Your task to perform on an android device: Go to Google Image 0: 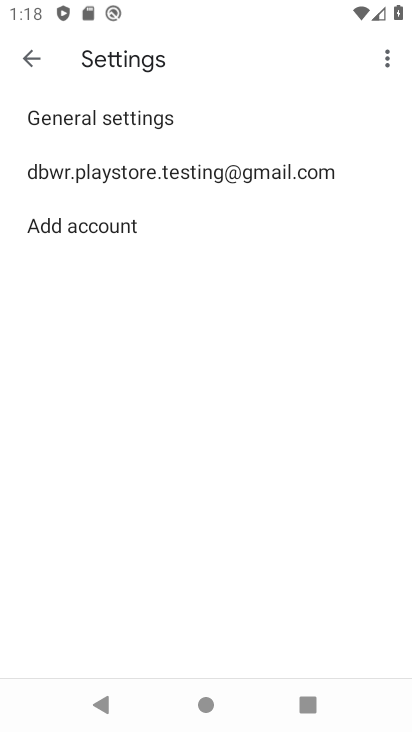
Step 0: press home button
Your task to perform on an android device: Go to Google Image 1: 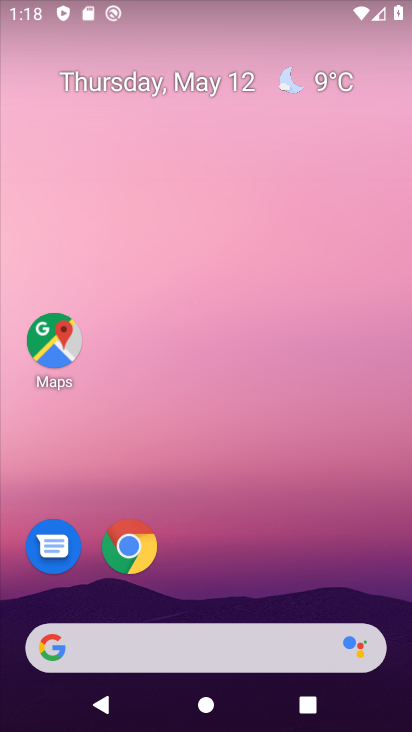
Step 1: drag from (257, 670) to (387, 122)
Your task to perform on an android device: Go to Google Image 2: 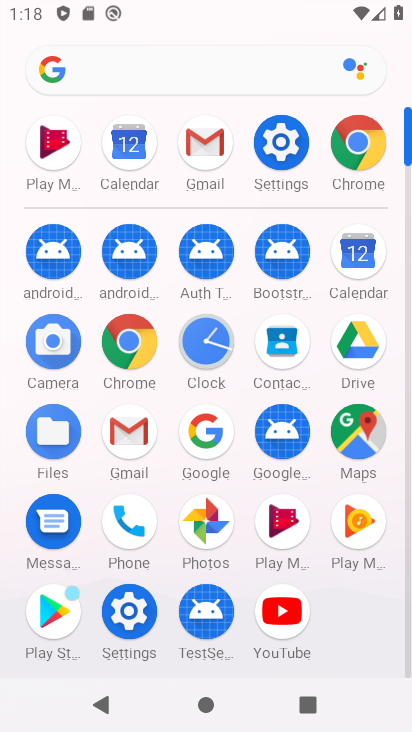
Step 2: click (126, 69)
Your task to perform on an android device: Go to Google Image 3: 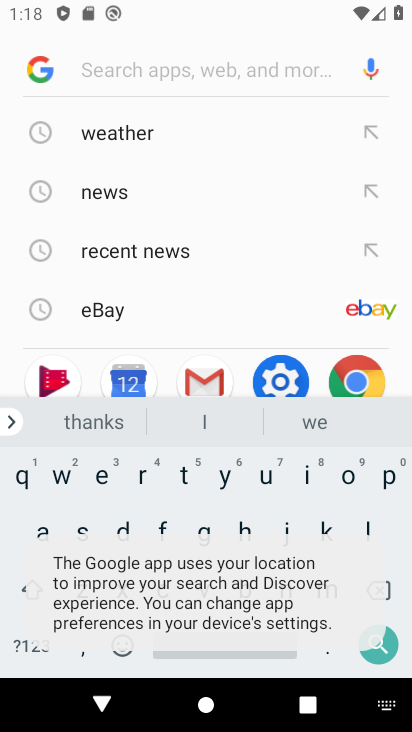
Step 3: click (45, 76)
Your task to perform on an android device: Go to Google Image 4: 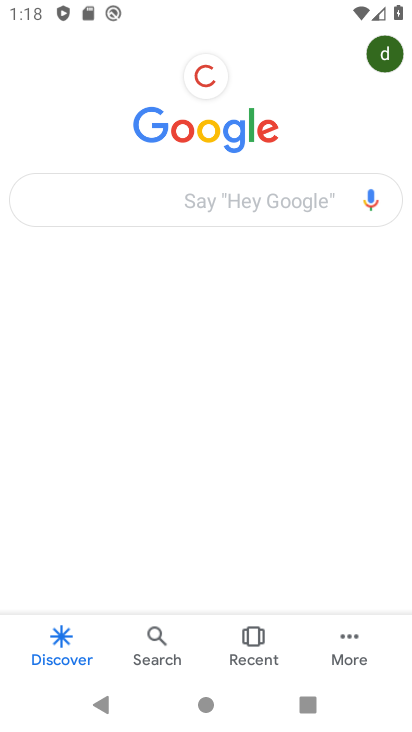
Step 4: task complete